Your task to perform on an android device: check data usage Image 0: 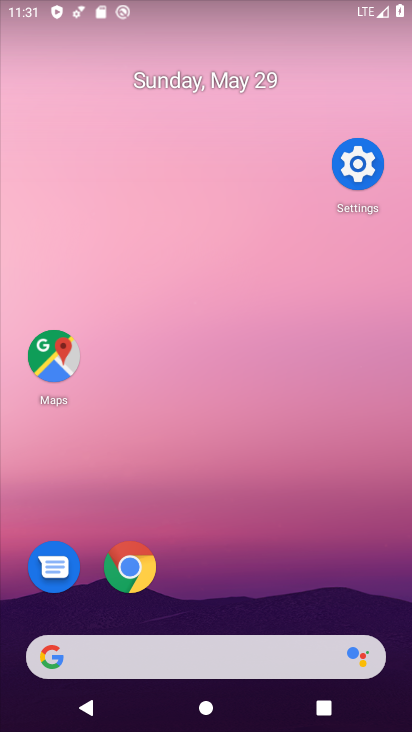
Step 0: drag from (344, 603) to (268, 179)
Your task to perform on an android device: check data usage Image 1: 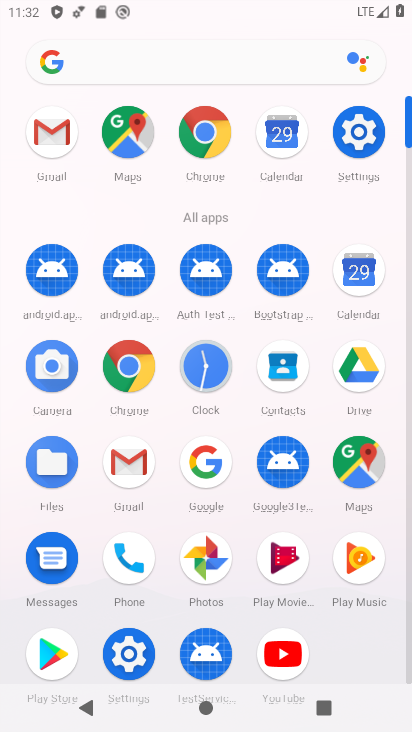
Step 1: click (145, 661)
Your task to perform on an android device: check data usage Image 2: 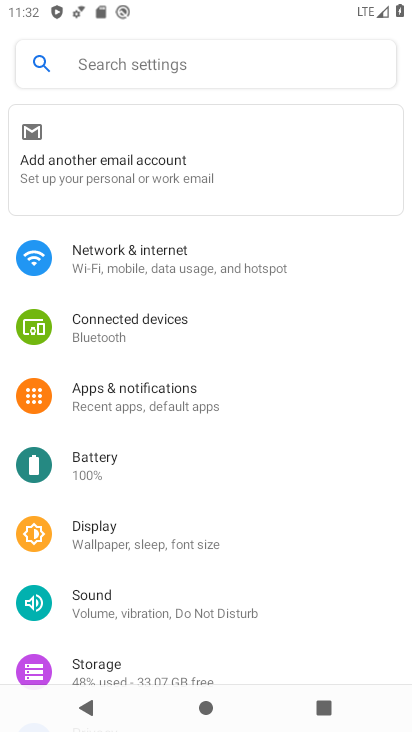
Step 2: click (148, 272)
Your task to perform on an android device: check data usage Image 3: 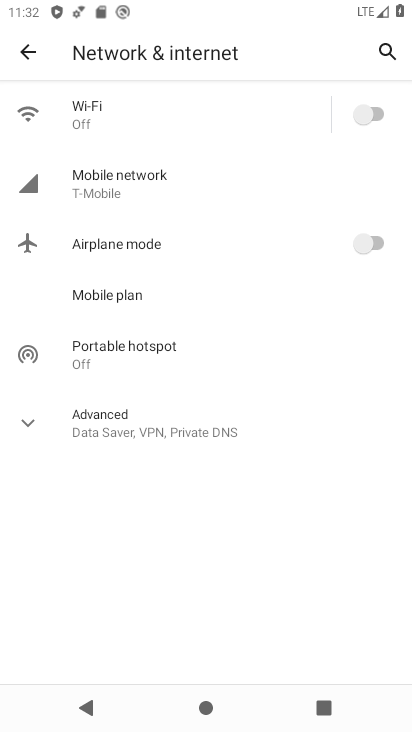
Step 3: click (153, 184)
Your task to perform on an android device: check data usage Image 4: 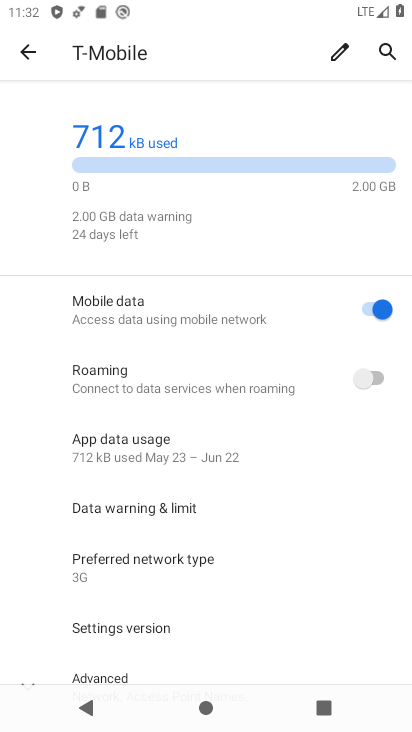
Step 4: task complete